Your task to perform on an android device: Go to privacy settings Image 0: 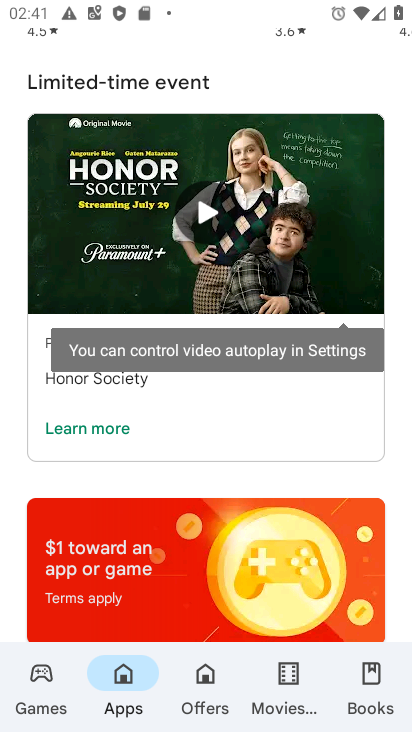
Step 0: press home button
Your task to perform on an android device: Go to privacy settings Image 1: 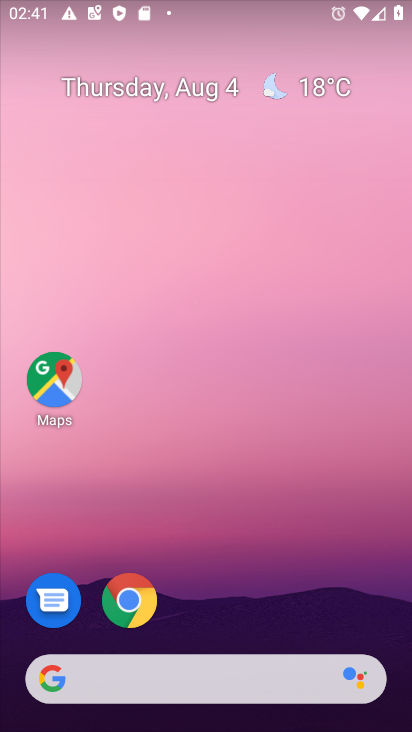
Step 1: drag from (125, 684) to (315, 85)
Your task to perform on an android device: Go to privacy settings Image 2: 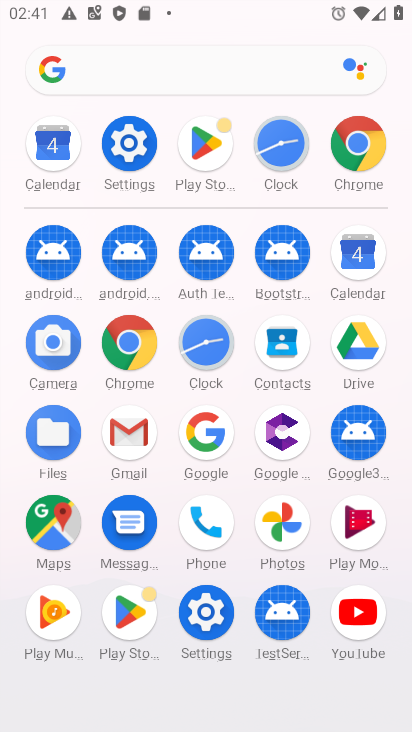
Step 2: click (128, 148)
Your task to perform on an android device: Go to privacy settings Image 3: 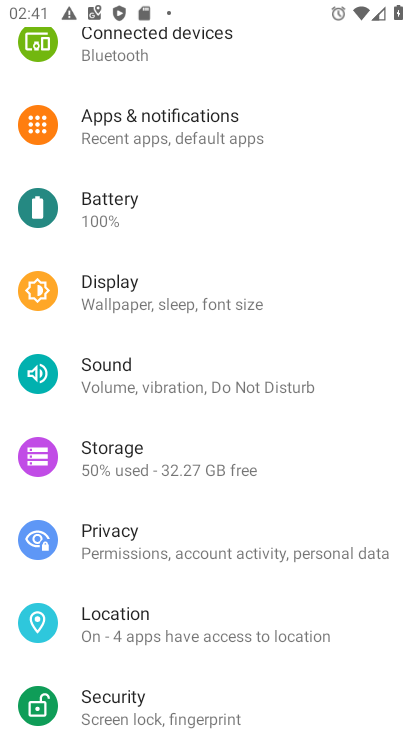
Step 3: click (135, 546)
Your task to perform on an android device: Go to privacy settings Image 4: 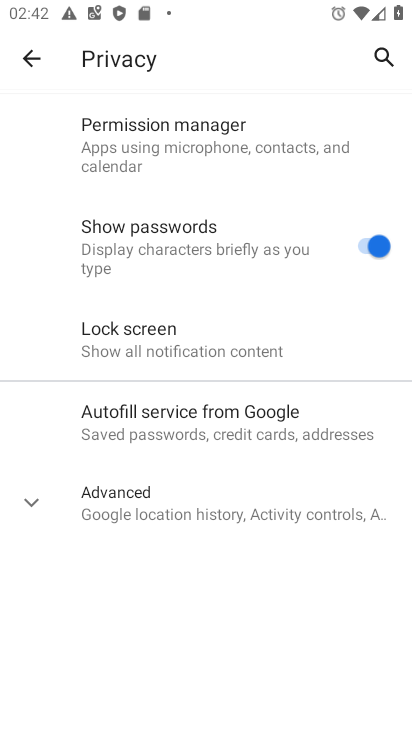
Step 4: task complete